Your task to perform on an android device: open a new tab in the chrome app Image 0: 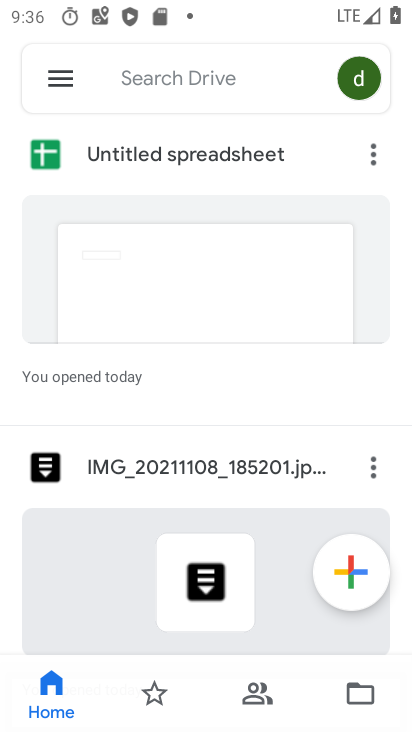
Step 0: press home button
Your task to perform on an android device: open a new tab in the chrome app Image 1: 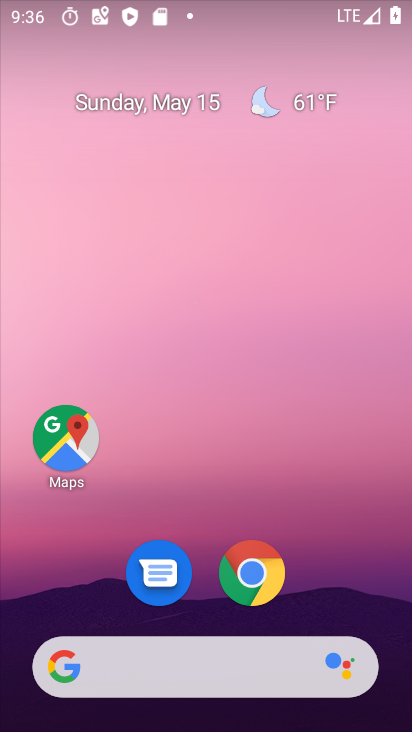
Step 1: click (262, 568)
Your task to perform on an android device: open a new tab in the chrome app Image 2: 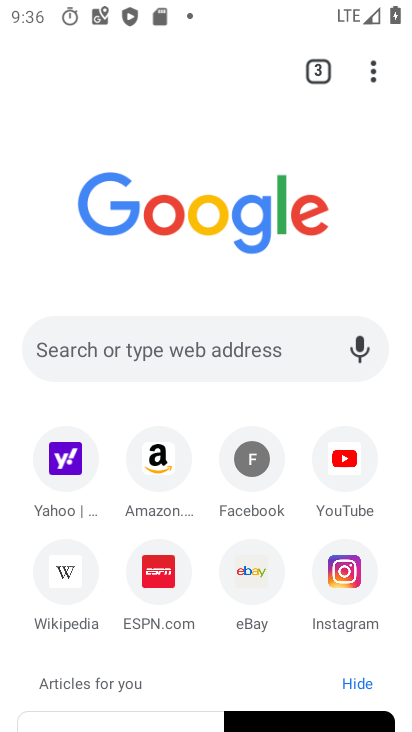
Step 2: click (329, 68)
Your task to perform on an android device: open a new tab in the chrome app Image 3: 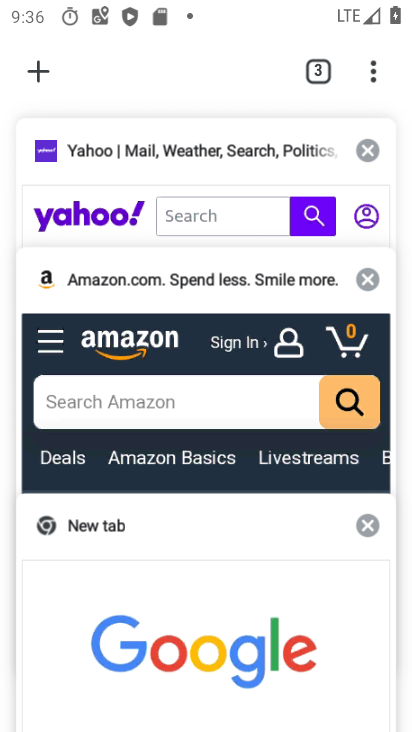
Step 3: click (31, 75)
Your task to perform on an android device: open a new tab in the chrome app Image 4: 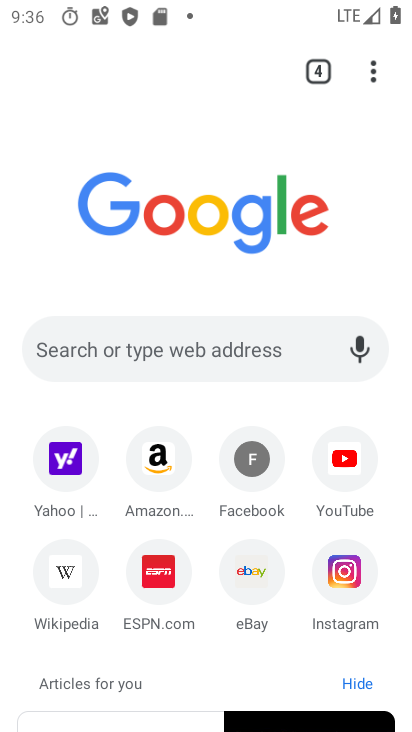
Step 4: click (323, 63)
Your task to perform on an android device: open a new tab in the chrome app Image 5: 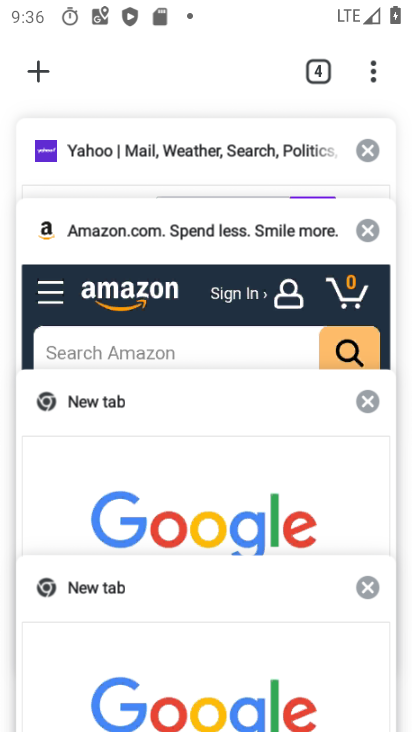
Step 5: click (366, 220)
Your task to perform on an android device: open a new tab in the chrome app Image 6: 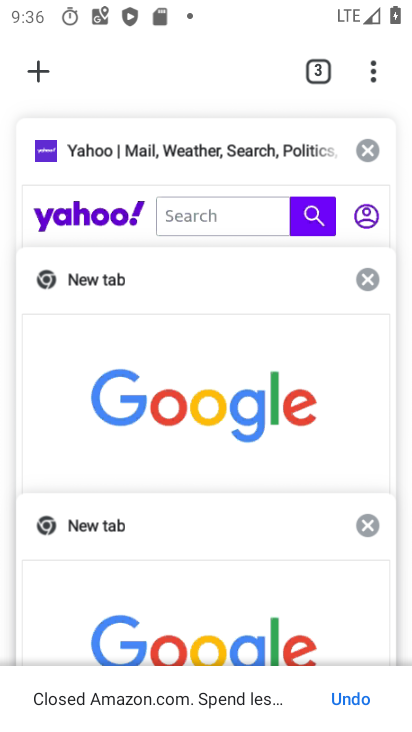
Step 6: click (362, 150)
Your task to perform on an android device: open a new tab in the chrome app Image 7: 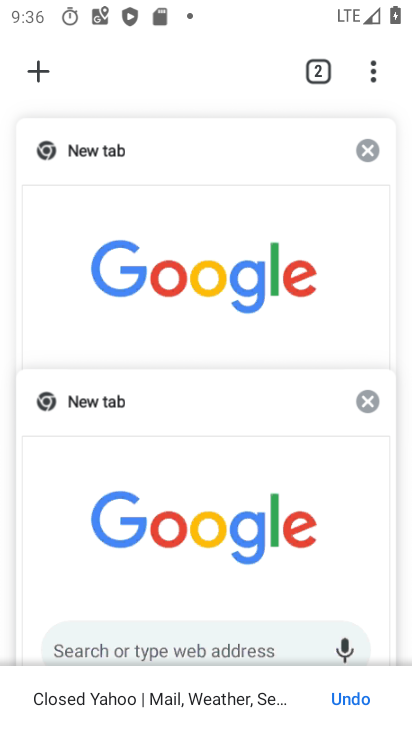
Step 7: click (367, 161)
Your task to perform on an android device: open a new tab in the chrome app Image 8: 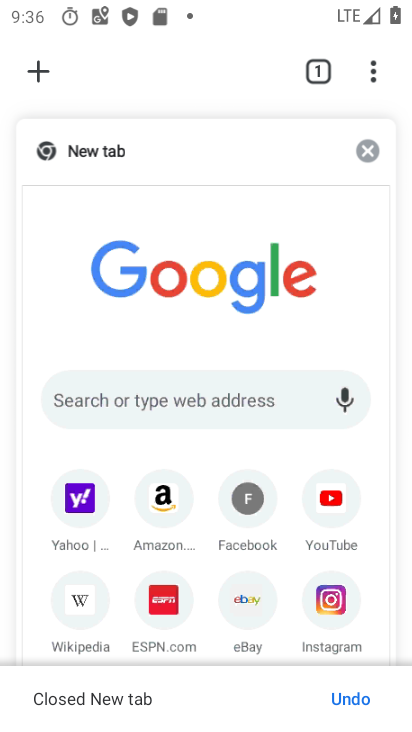
Step 8: task complete